Your task to perform on an android device: change notification settings in the gmail app Image 0: 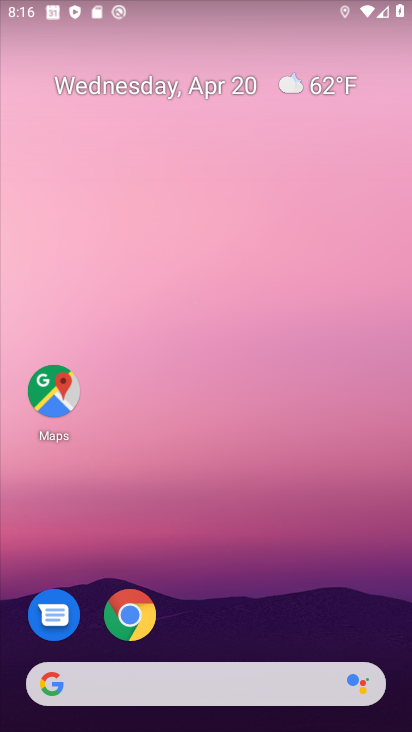
Step 0: drag from (222, 560) to (302, 25)
Your task to perform on an android device: change notification settings in the gmail app Image 1: 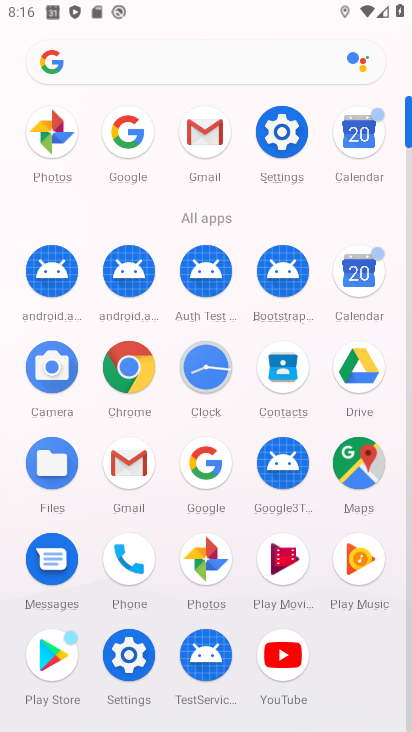
Step 1: click (135, 462)
Your task to perform on an android device: change notification settings in the gmail app Image 2: 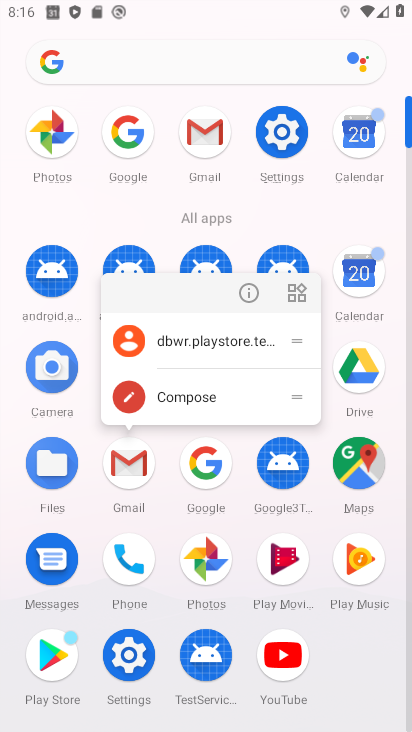
Step 2: click (135, 462)
Your task to perform on an android device: change notification settings in the gmail app Image 3: 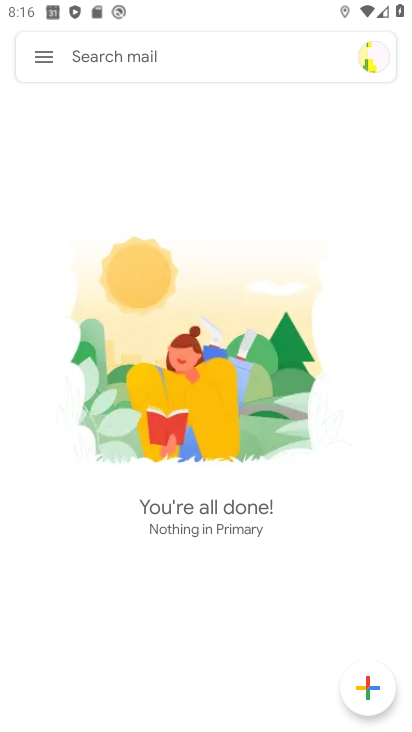
Step 3: click (43, 56)
Your task to perform on an android device: change notification settings in the gmail app Image 4: 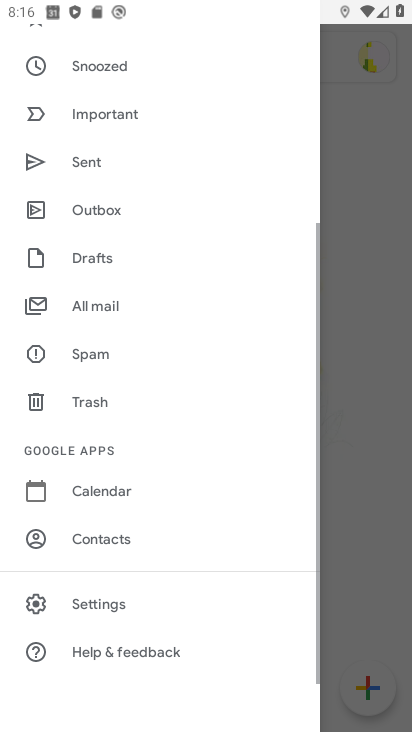
Step 4: click (86, 607)
Your task to perform on an android device: change notification settings in the gmail app Image 5: 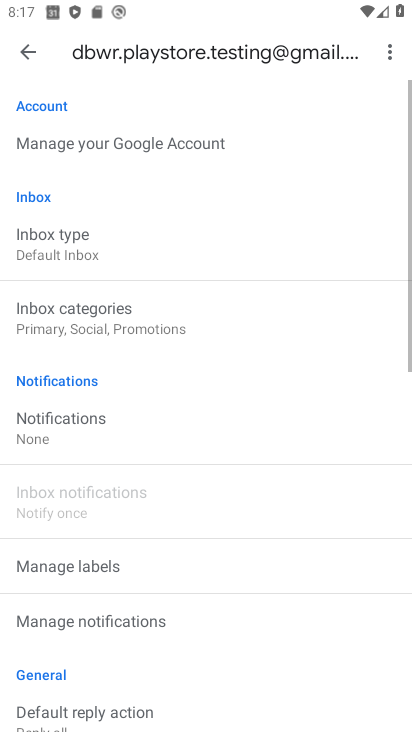
Step 5: drag from (163, 582) to (217, 117)
Your task to perform on an android device: change notification settings in the gmail app Image 6: 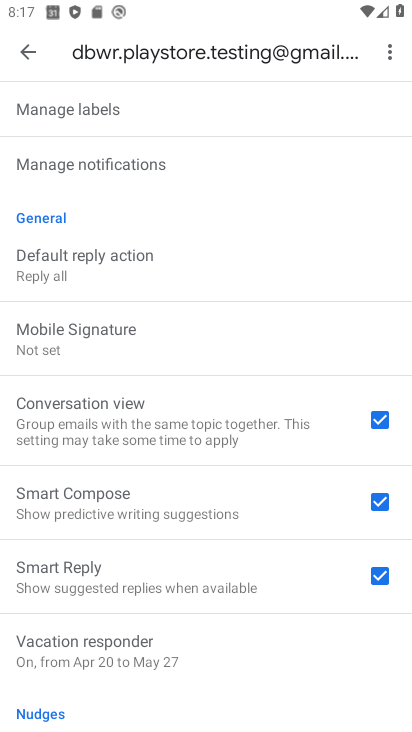
Step 6: drag from (132, 670) to (147, 291)
Your task to perform on an android device: change notification settings in the gmail app Image 7: 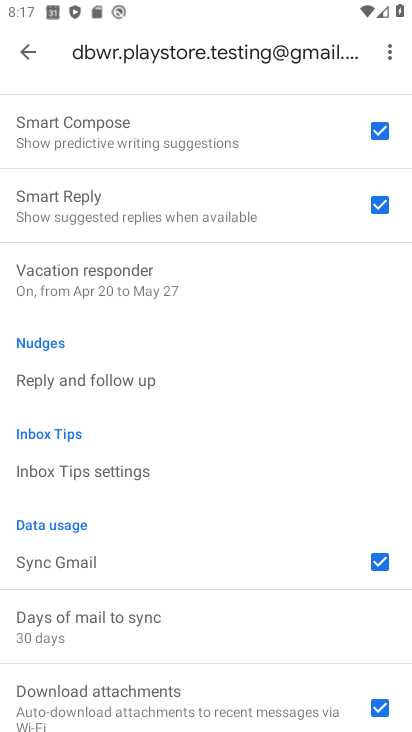
Step 7: click (179, 636)
Your task to perform on an android device: change notification settings in the gmail app Image 8: 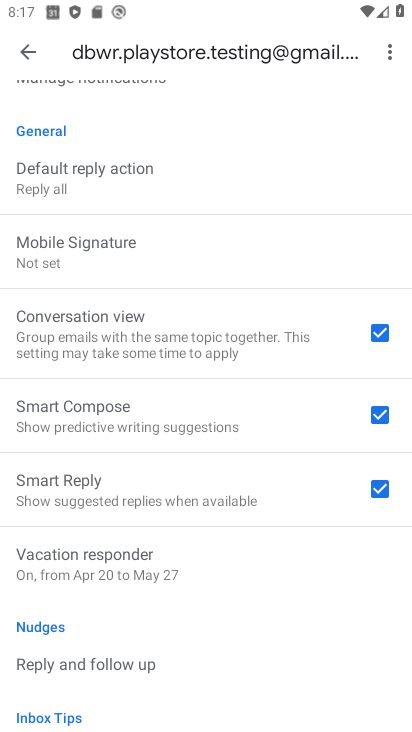
Step 8: drag from (95, 155) to (152, 447)
Your task to perform on an android device: change notification settings in the gmail app Image 9: 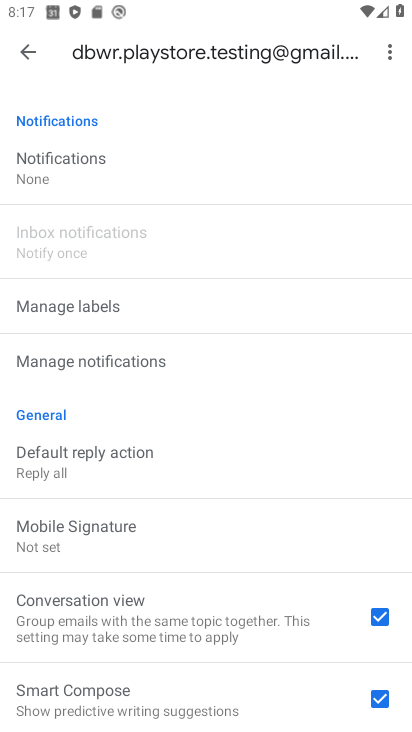
Step 9: click (38, 167)
Your task to perform on an android device: change notification settings in the gmail app Image 10: 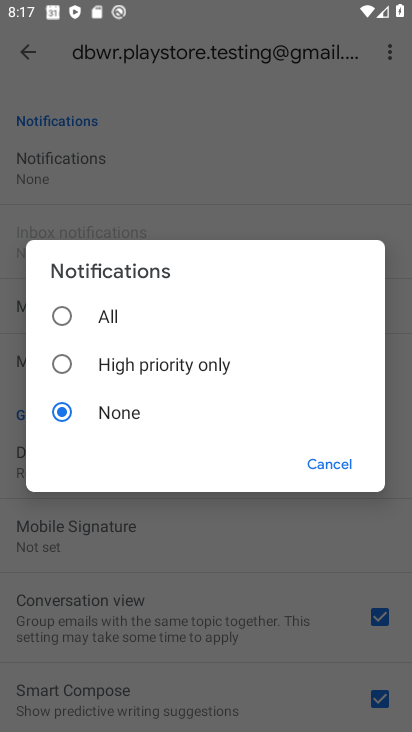
Step 10: click (107, 318)
Your task to perform on an android device: change notification settings in the gmail app Image 11: 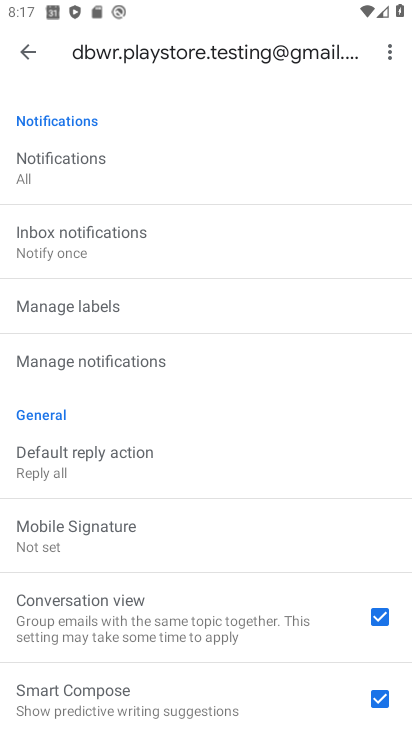
Step 11: task complete